Your task to perform on an android device: empty trash in google photos Image 0: 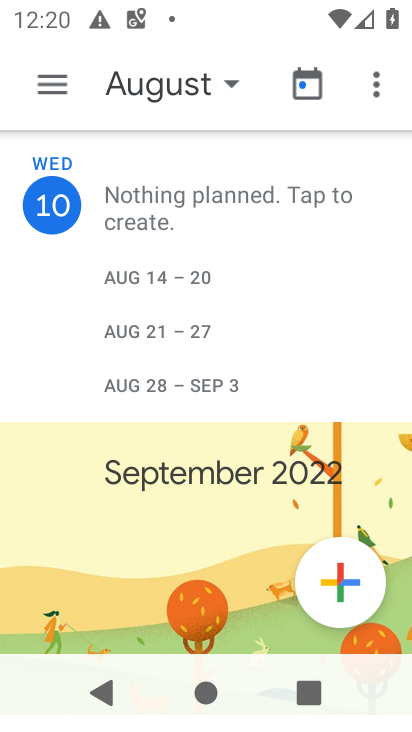
Step 0: press home button
Your task to perform on an android device: empty trash in google photos Image 1: 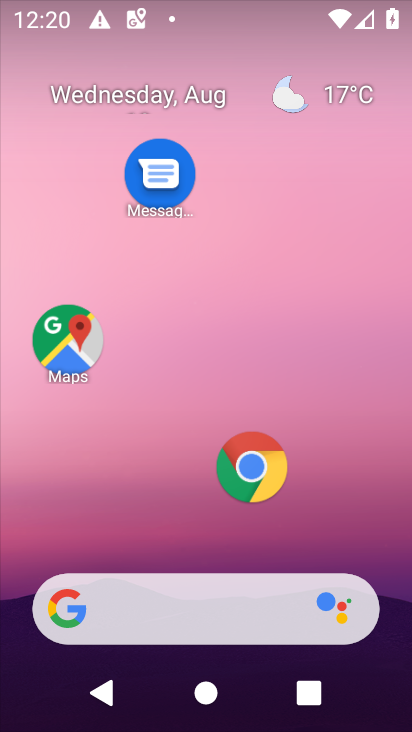
Step 1: drag from (196, 540) to (175, 46)
Your task to perform on an android device: empty trash in google photos Image 2: 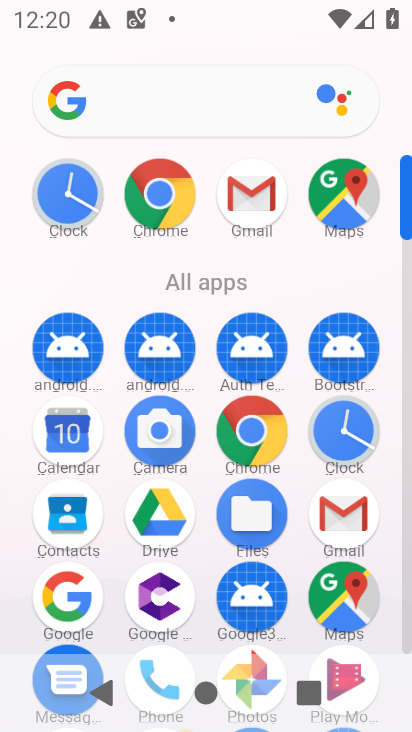
Step 2: drag from (202, 550) to (206, 168)
Your task to perform on an android device: empty trash in google photos Image 3: 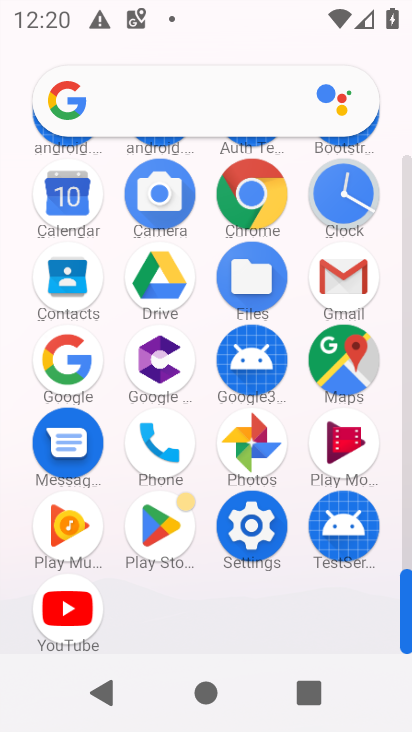
Step 3: click (276, 442)
Your task to perform on an android device: empty trash in google photos Image 4: 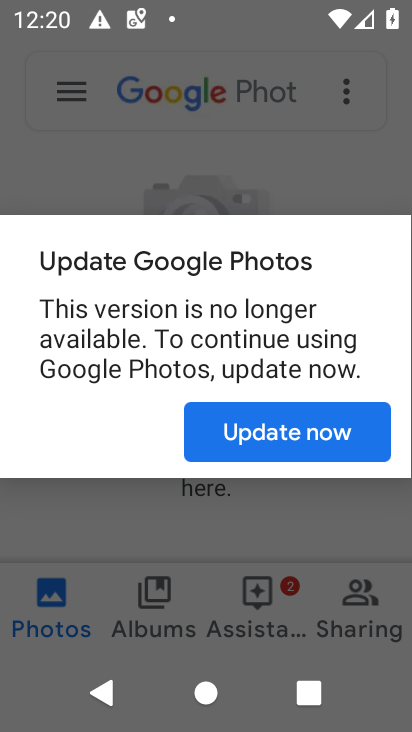
Step 4: click (213, 442)
Your task to perform on an android device: empty trash in google photos Image 5: 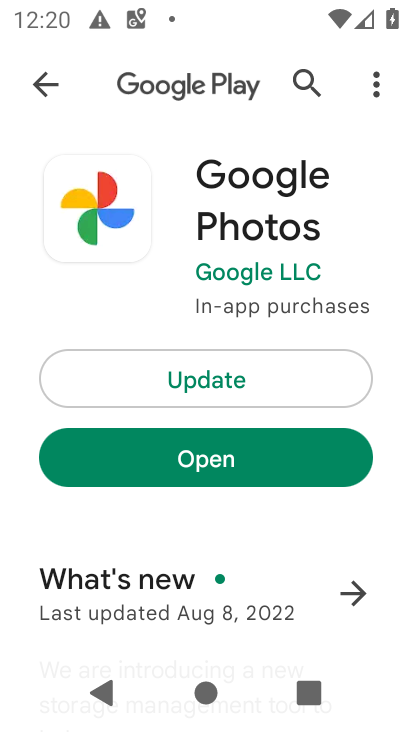
Step 5: click (227, 455)
Your task to perform on an android device: empty trash in google photos Image 6: 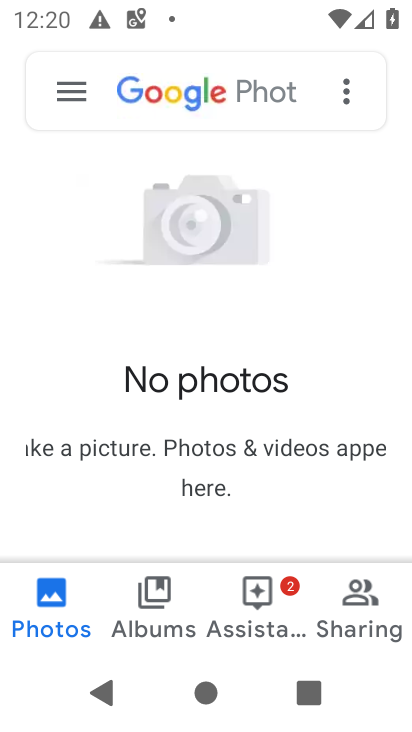
Step 6: click (92, 113)
Your task to perform on an android device: empty trash in google photos Image 7: 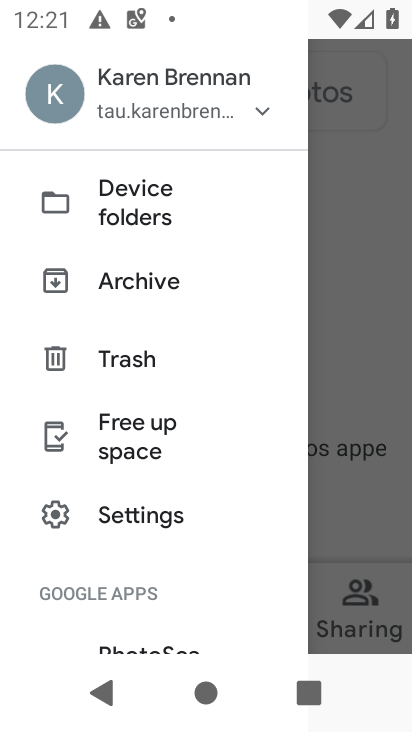
Step 7: click (149, 358)
Your task to perform on an android device: empty trash in google photos Image 8: 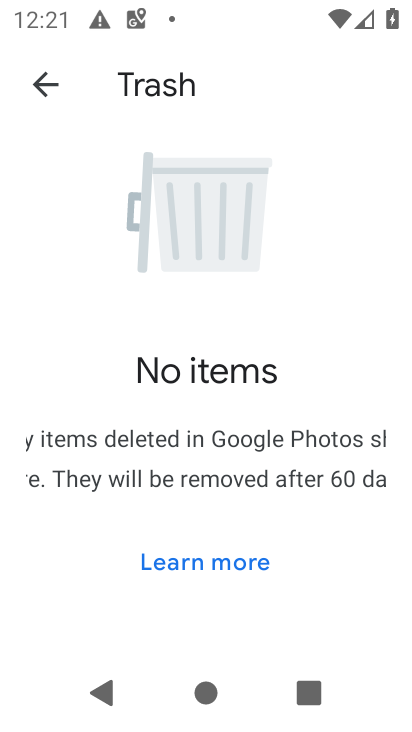
Step 8: task complete